Your task to perform on an android device: change your default location settings in chrome Image 0: 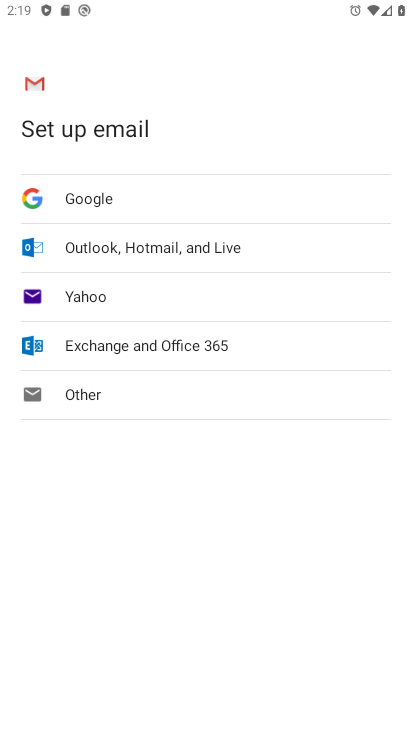
Step 0: press home button
Your task to perform on an android device: change your default location settings in chrome Image 1: 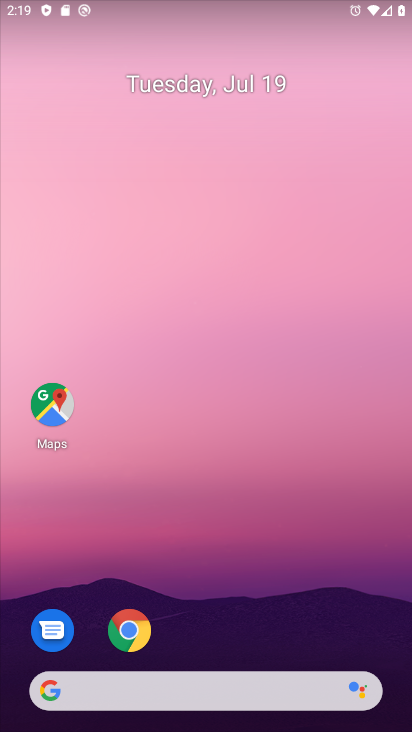
Step 1: click (133, 629)
Your task to perform on an android device: change your default location settings in chrome Image 2: 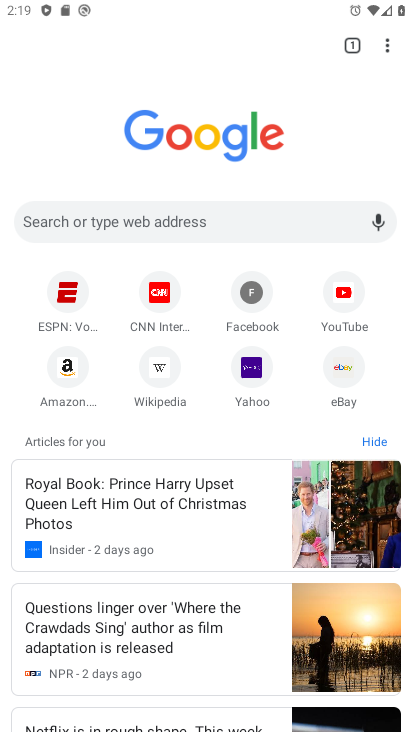
Step 2: click (383, 48)
Your task to perform on an android device: change your default location settings in chrome Image 3: 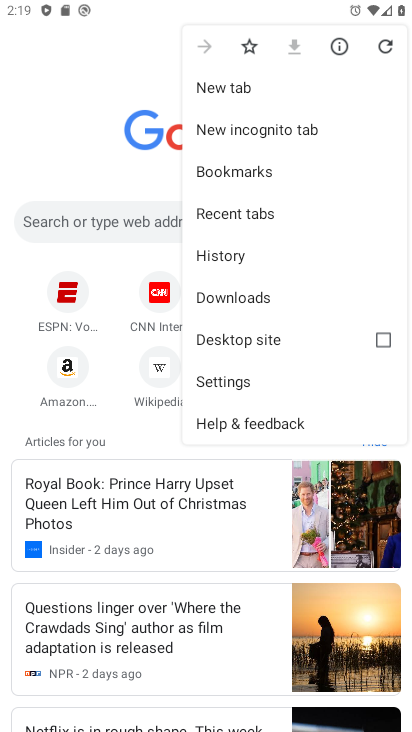
Step 3: click (238, 386)
Your task to perform on an android device: change your default location settings in chrome Image 4: 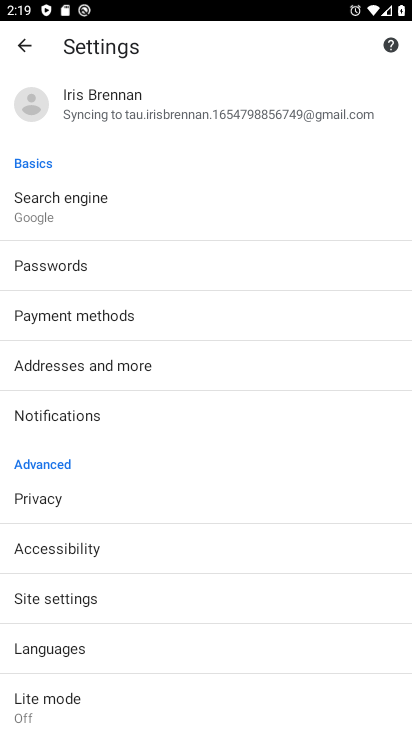
Step 4: click (81, 590)
Your task to perform on an android device: change your default location settings in chrome Image 5: 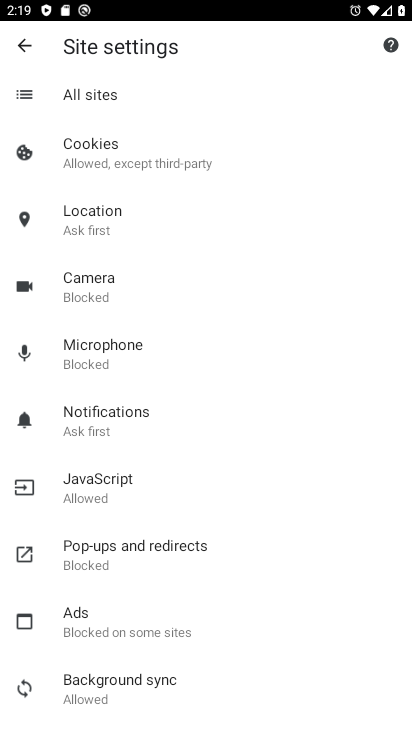
Step 5: click (98, 209)
Your task to perform on an android device: change your default location settings in chrome Image 6: 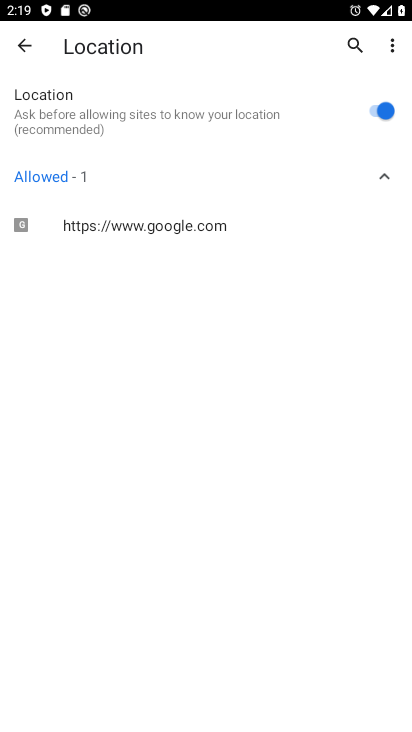
Step 6: click (381, 104)
Your task to perform on an android device: change your default location settings in chrome Image 7: 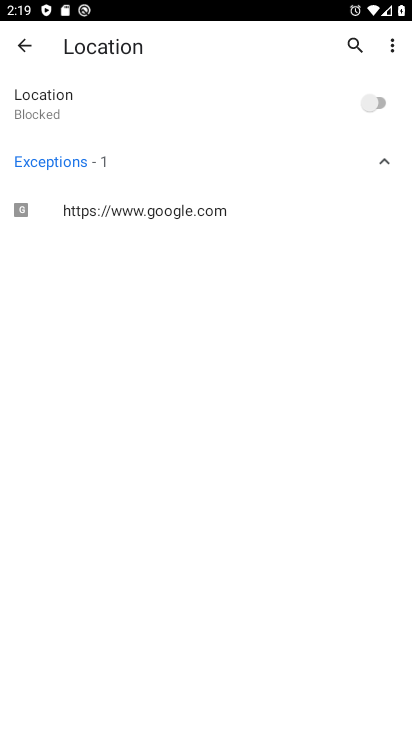
Step 7: task complete